Your task to perform on an android device: Turn on the flashlight Image 0: 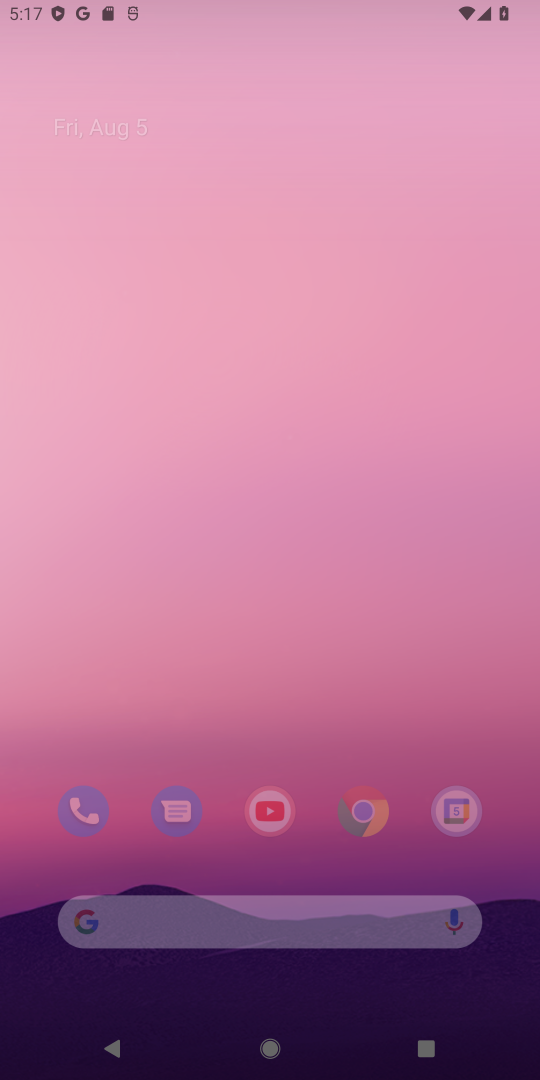
Step 0: press home button
Your task to perform on an android device: Turn on the flashlight Image 1: 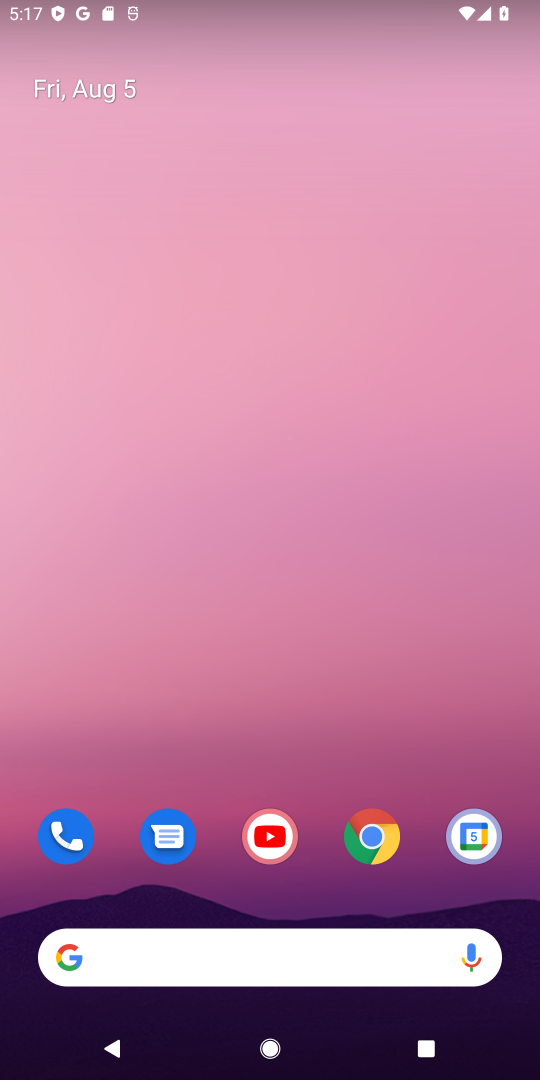
Step 1: drag from (319, 899) to (339, 10)
Your task to perform on an android device: Turn on the flashlight Image 2: 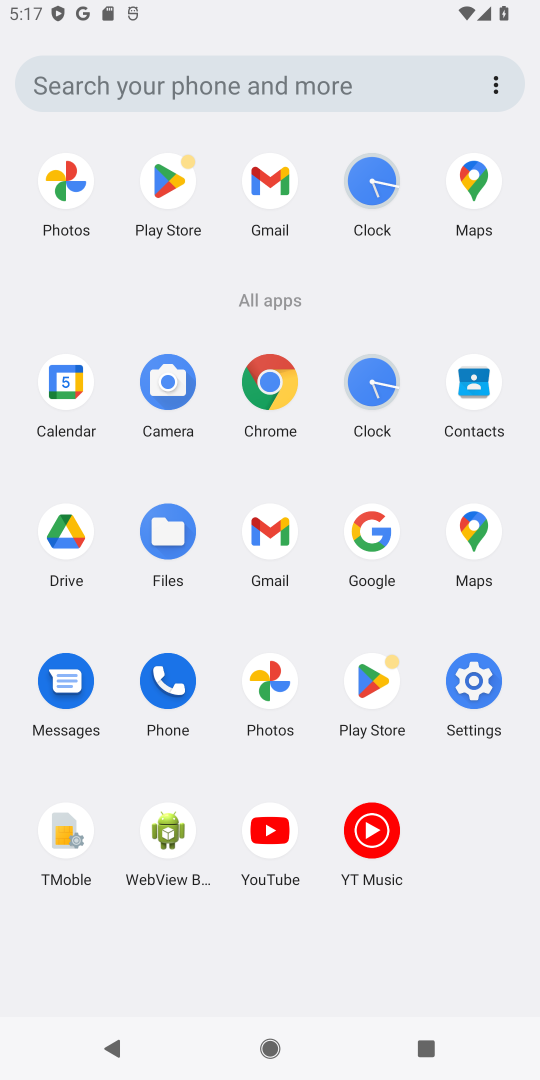
Step 2: click (467, 673)
Your task to perform on an android device: Turn on the flashlight Image 3: 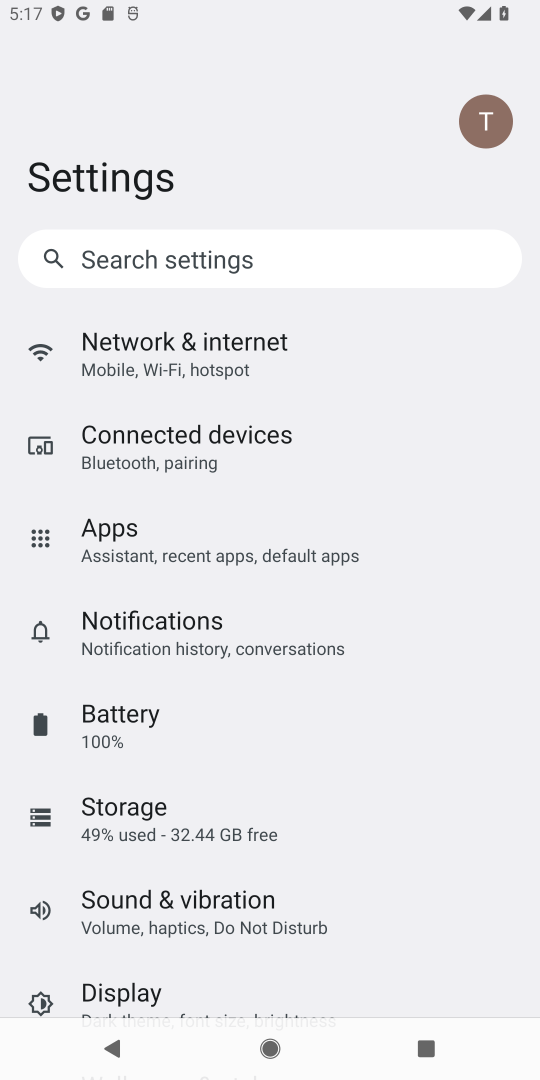
Step 3: click (192, 251)
Your task to perform on an android device: Turn on the flashlight Image 4: 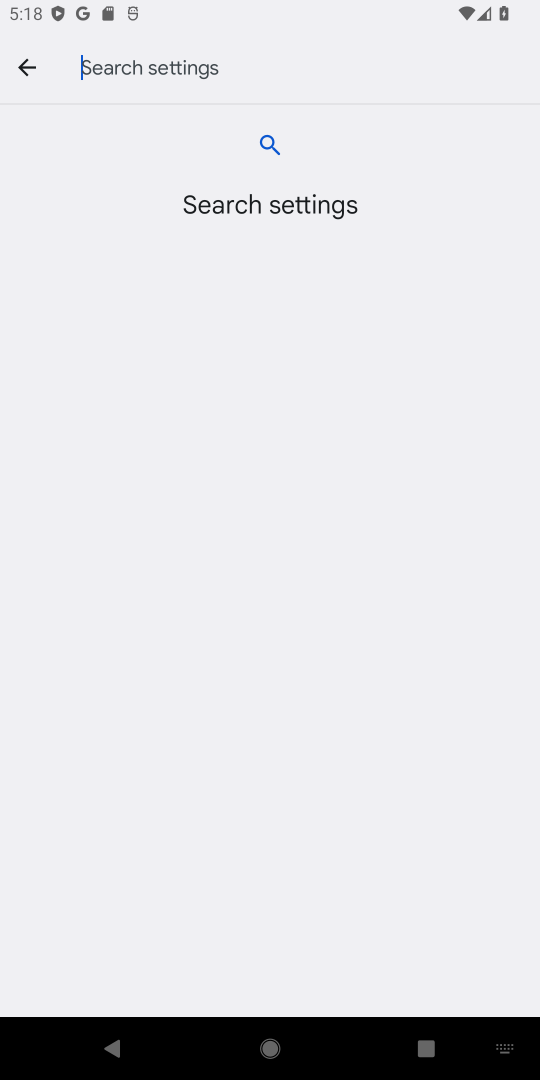
Step 4: type "flashlight"
Your task to perform on an android device: Turn on the flashlight Image 5: 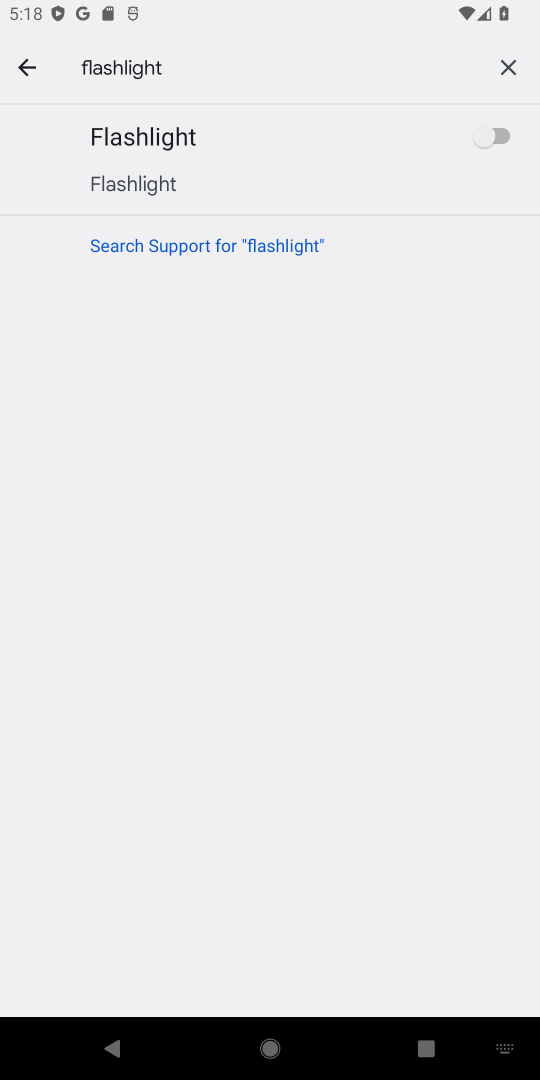
Step 5: click (500, 143)
Your task to perform on an android device: Turn on the flashlight Image 6: 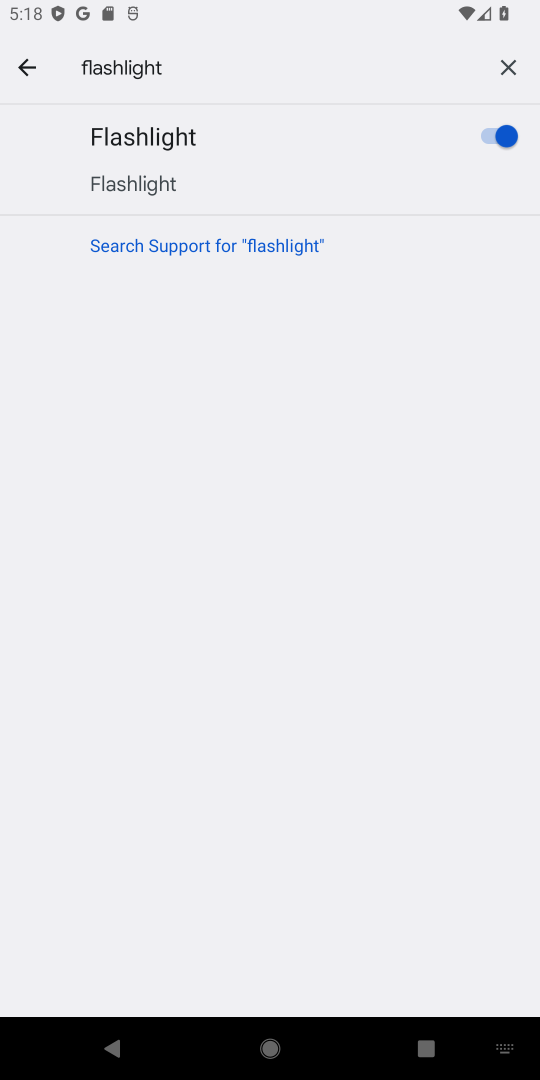
Step 6: task complete